Your task to perform on an android device: toggle pop-ups in chrome Image 0: 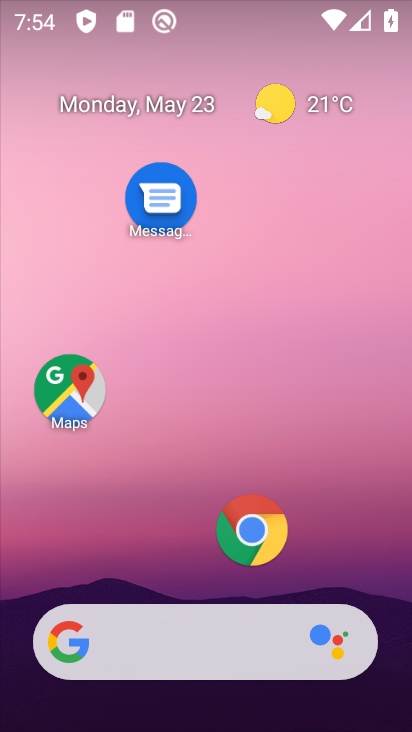
Step 0: click (251, 528)
Your task to perform on an android device: toggle pop-ups in chrome Image 1: 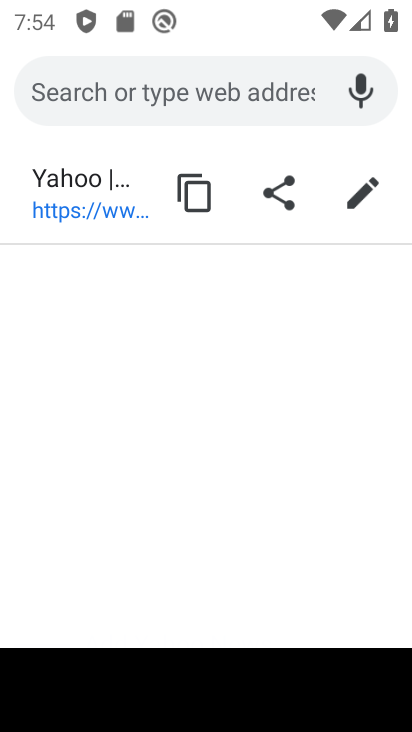
Step 1: press back button
Your task to perform on an android device: toggle pop-ups in chrome Image 2: 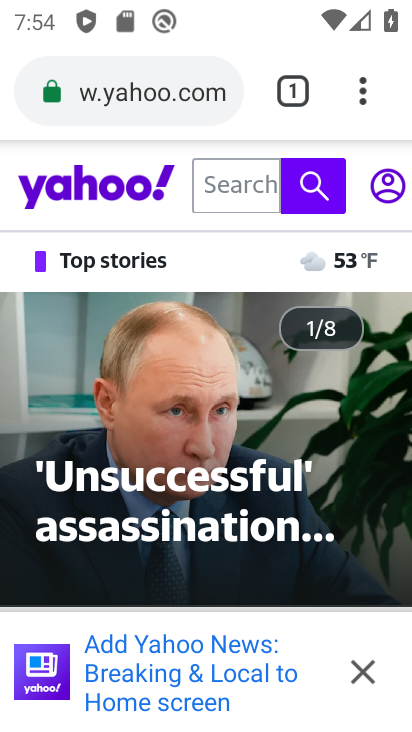
Step 2: click (372, 84)
Your task to perform on an android device: toggle pop-ups in chrome Image 3: 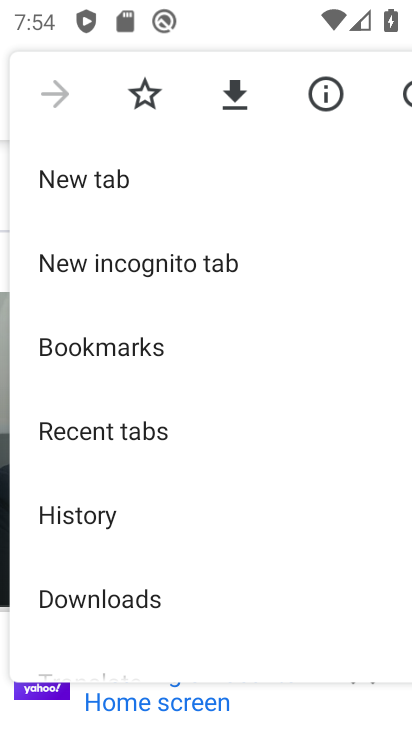
Step 3: drag from (170, 640) to (217, 136)
Your task to perform on an android device: toggle pop-ups in chrome Image 4: 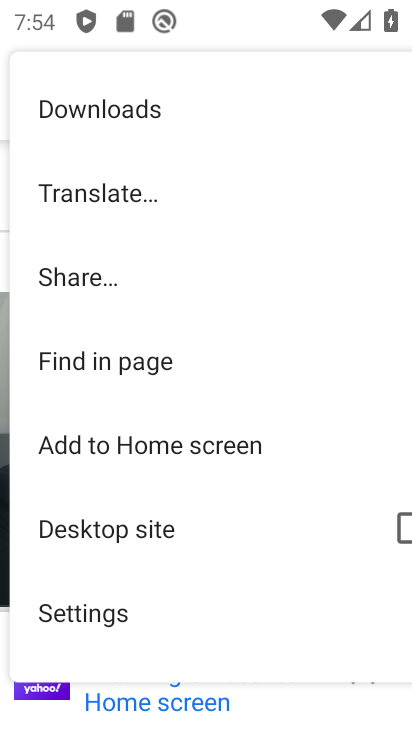
Step 4: click (115, 621)
Your task to perform on an android device: toggle pop-ups in chrome Image 5: 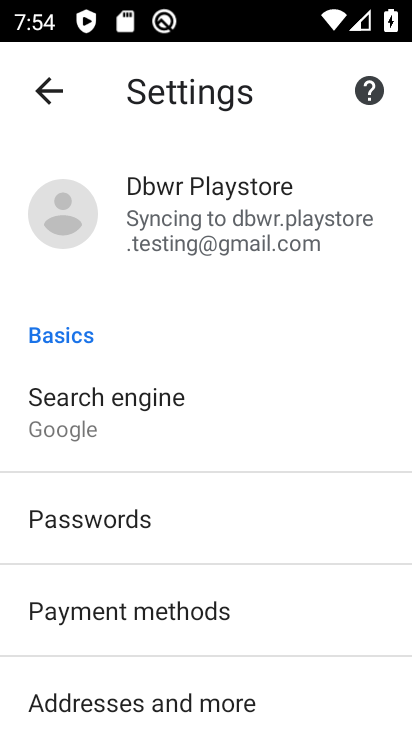
Step 5: drag from (115, 621) to (358, 82)
Your task to perform on an android device: toggle pop-ups in chrome Image 6: 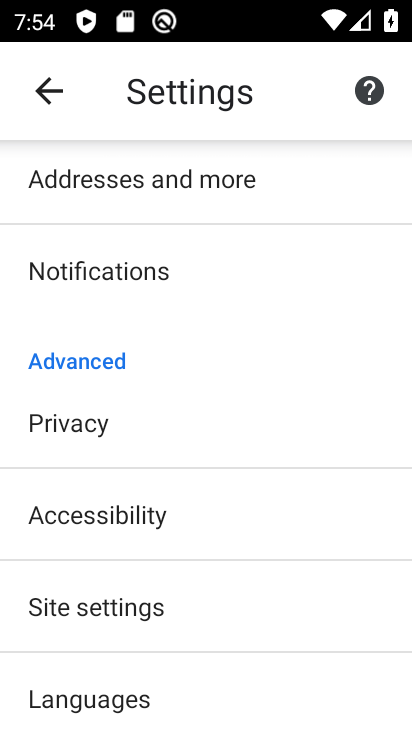
Step 6: click (154, 632)
Your task to perform on an android device: toggle pop-ups in chrome Image 7: 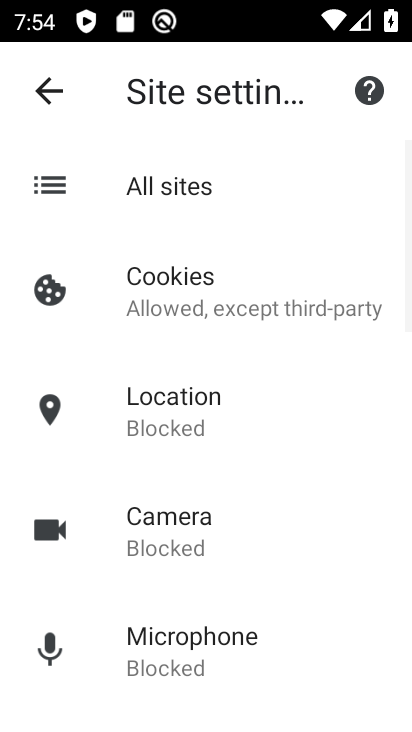
Step 7: drag from (154, 632) to (221, 109)
Your task to perform on an android device: toggle pop-ups in chrome Image 8: 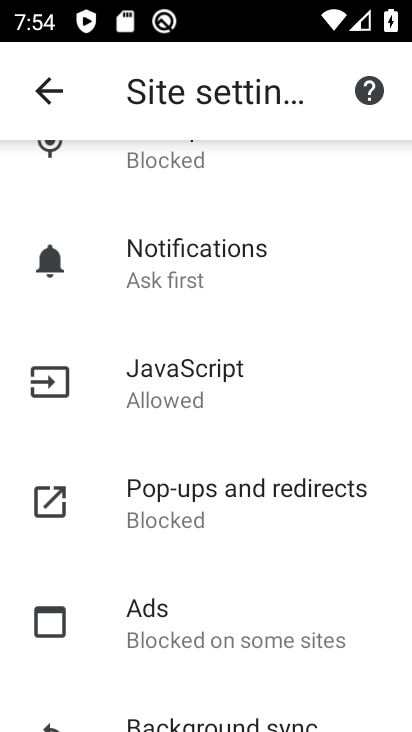
Step 8: drag from (99, 680) to (209, 277)
Your task to perform on an android device: toggle pop-ups in chrome Image 9: 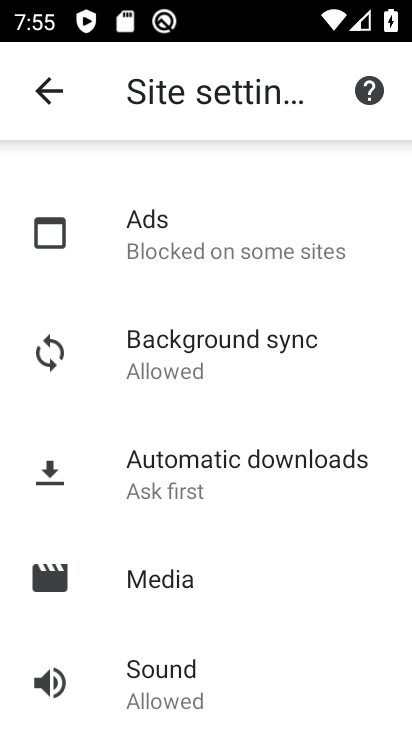
Step 9: drag from (209, 277) to (178, 731)
Your task to perform on an android device: toggle pop-ups in chrome Image 10: 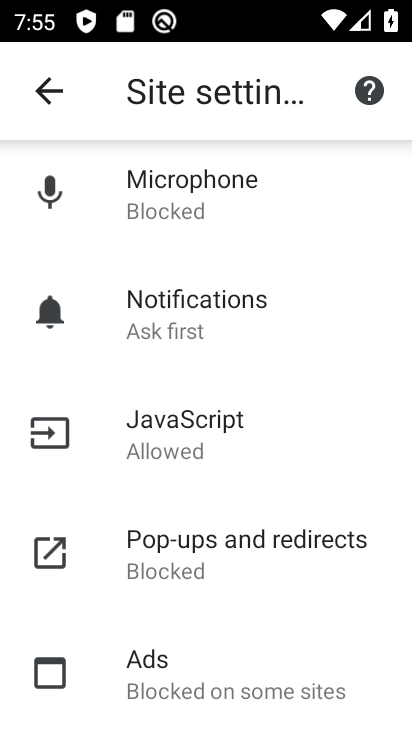
Step 10: click (128, 536)
Your task to perform on an android device: toggle pop-ups in chrome Image 11: 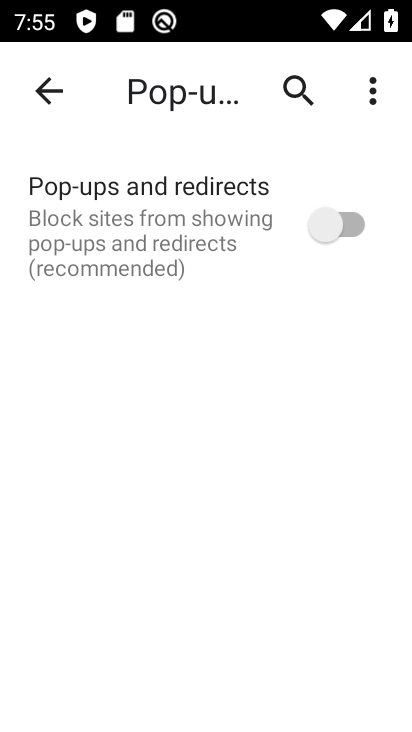
Step 11: click (351, 229)
Your task to perform on an android device: toggle pop-ups in chrome Image 12: 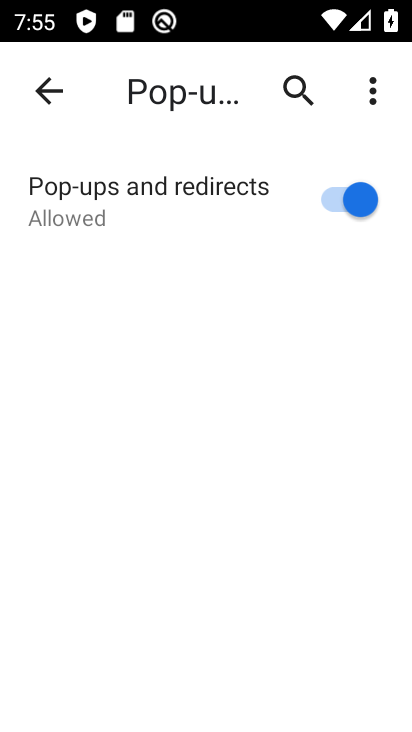
Step 12: click (351, 229)
Your task to perform on an android device: toggle pop-ups in chrome Image 13: 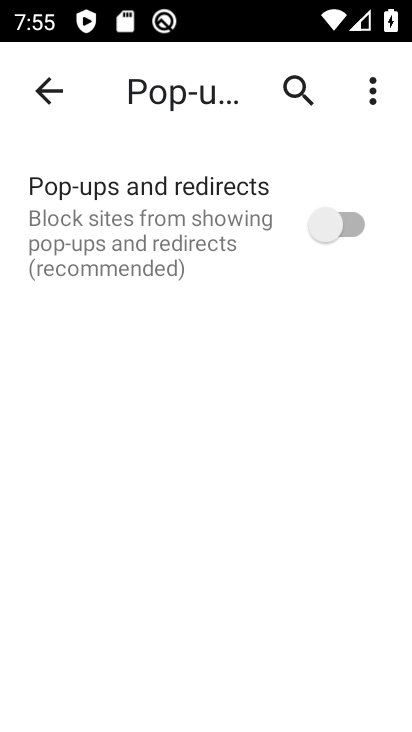
Step 13: task complete